Your task to perform on an android device: What is the news today? Image 0: 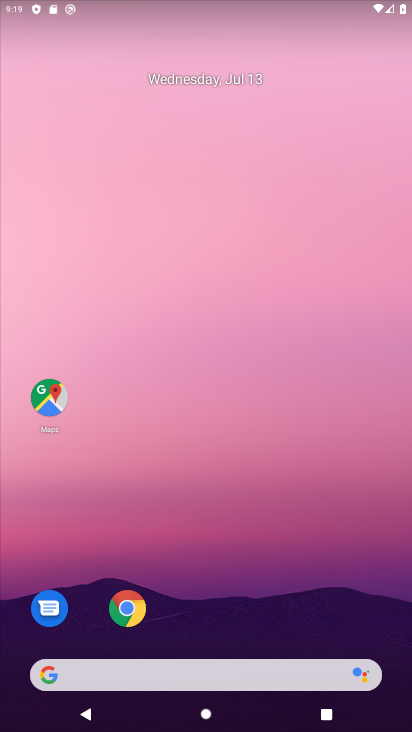
Step 0: click (109, 662)
Your task to perform on an android device: What is the news today? Image 1: 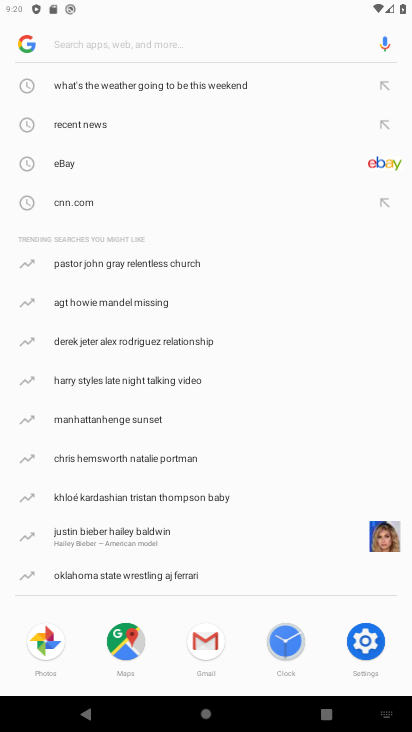
Step 1: type "What is the news today?"
Your task to perform on an android device: What is the news today? Image 2: 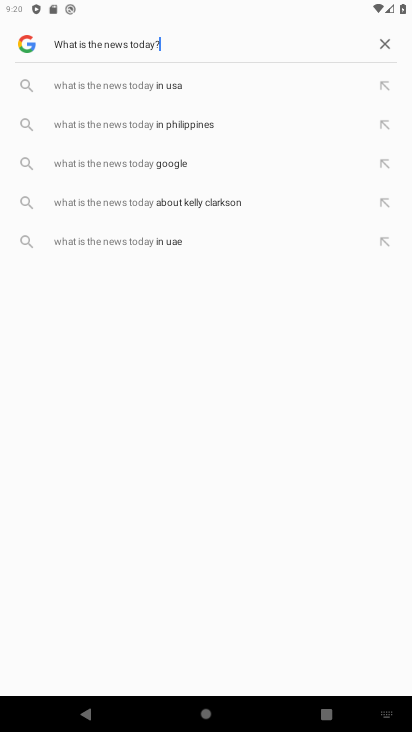
Step 2: type ""
Your task to perform on an android device: What is the news today? Image 3: 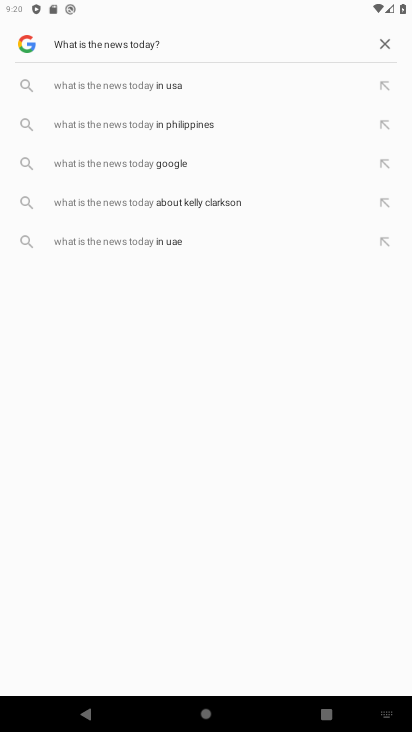
Step 3: type ""
Your task to perform on an android device: What is the news today? Image 4: 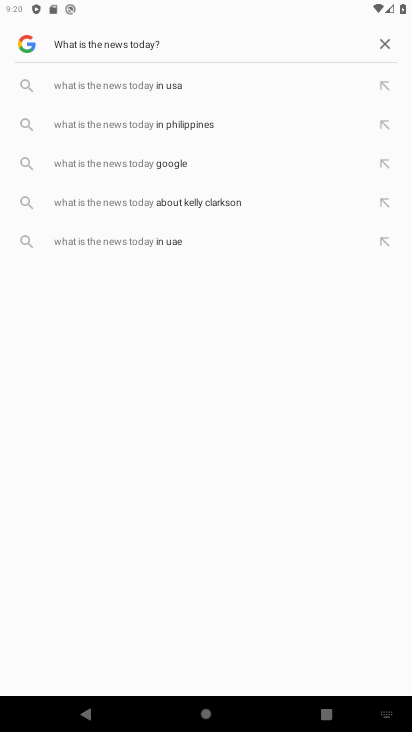
Step 4: type ""
Your task to perform on an android device: What is the news today? Image 5: 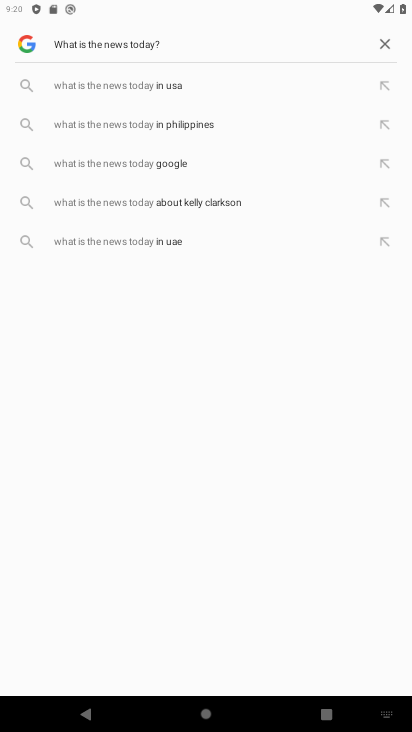
Step 5: task complete